Your task to perform on an android device: Go to ESPN.com Image 0: 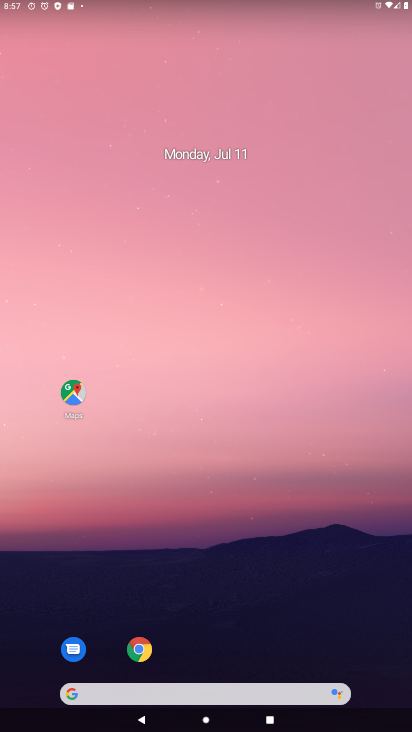
Step 0: click (141, 649)
Your task to perform on an android device: Go to ESPN.com Image 1: 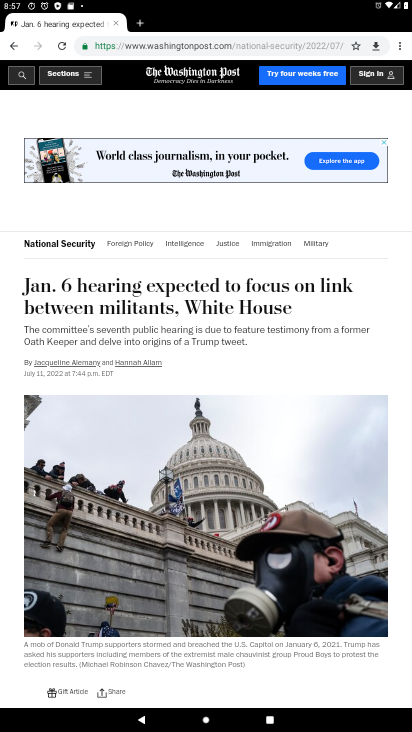
Step 1: click (299, 45)
Your task to perform on an android device: Go to ESPN.com Image 2: 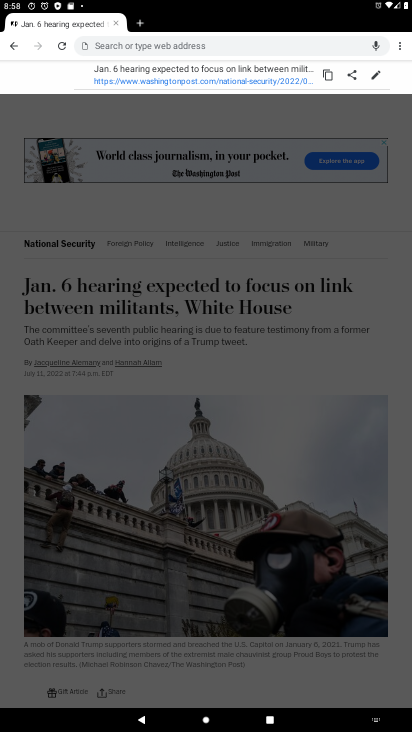
Step 2: type "ESPN.com"
Your task to perform on an android device: Go to ESPN.com Image 3: 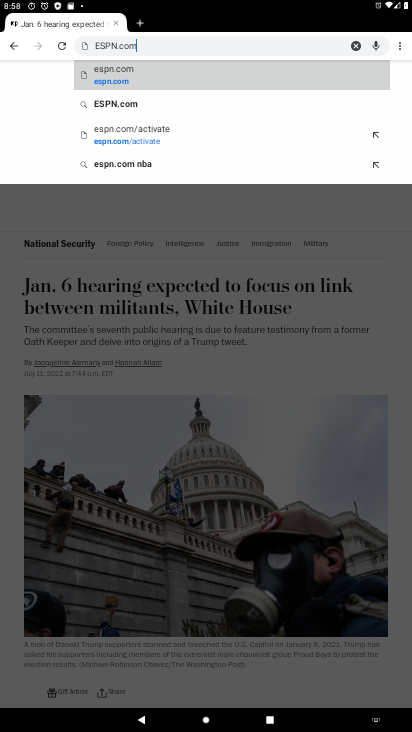
Step 3: click (129, 105)
Your task to perform on an android device: Go to ESPN.com Image 4: 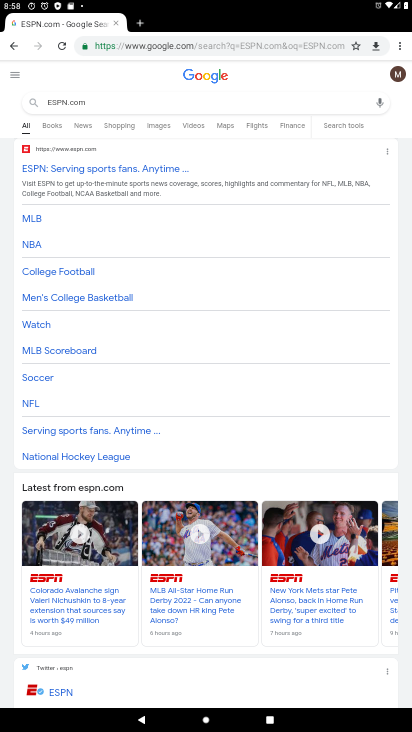
Step 4: click (134, 167)
Your task to perform on an android device: Go to ESPN.com Image 5: 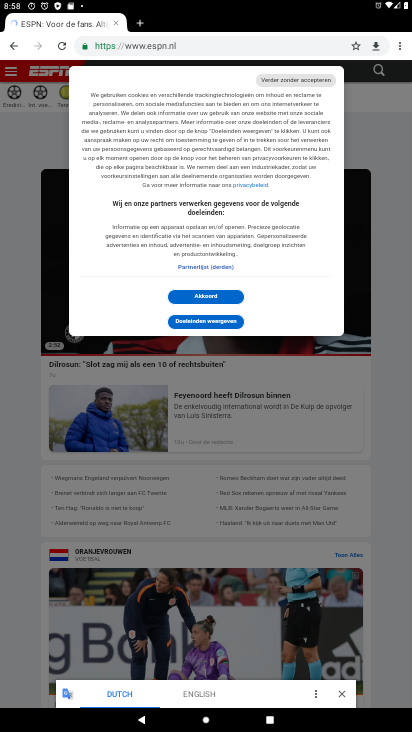
Step 5: click (215, 297)
Your task to perform on an android device: Go to ESPN.com Image 6: 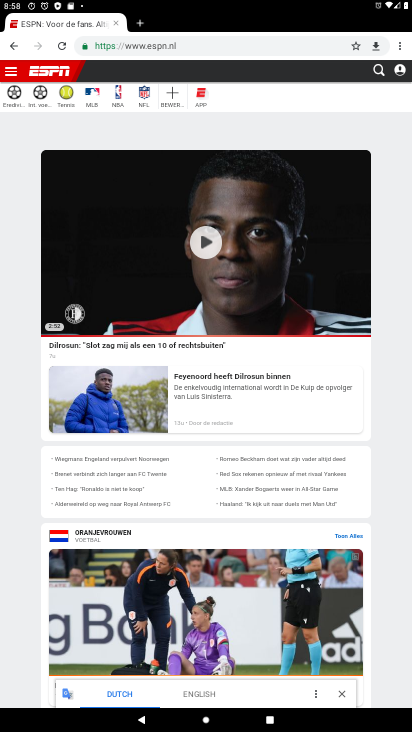
Step 6: task complete